Your task to perform on an android device: Is it going to rain today? Image 0: 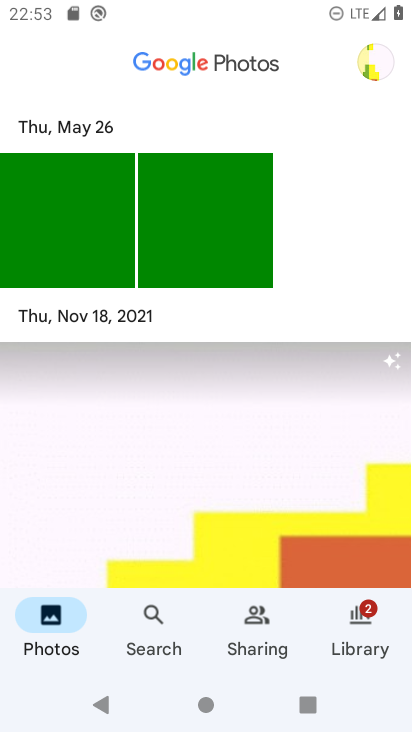
Step 0: press home button
Your task to perform on an android device: Is it going to rain today? Image 1: 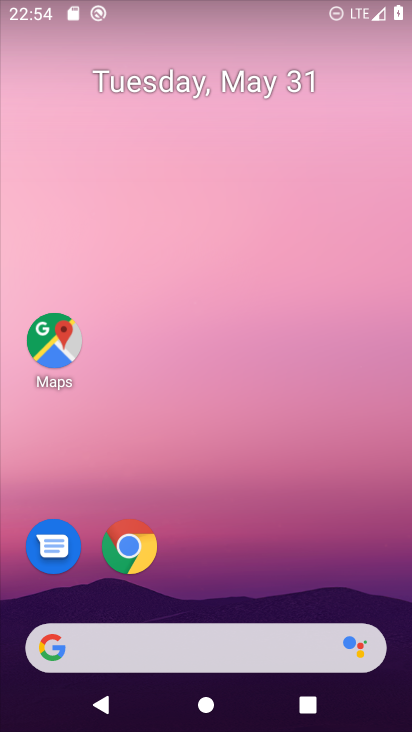
Step 1: drag from (201, 288) to (396, 279)
Your task to perform on an android device: Is it going to rain today? Image 2: 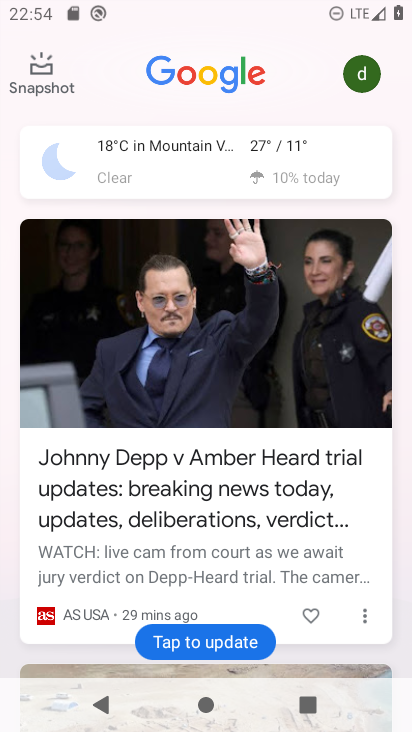
Step 2: click (264, 149)
Your task to perform on an android device: Is it going to rain today? Image 3: 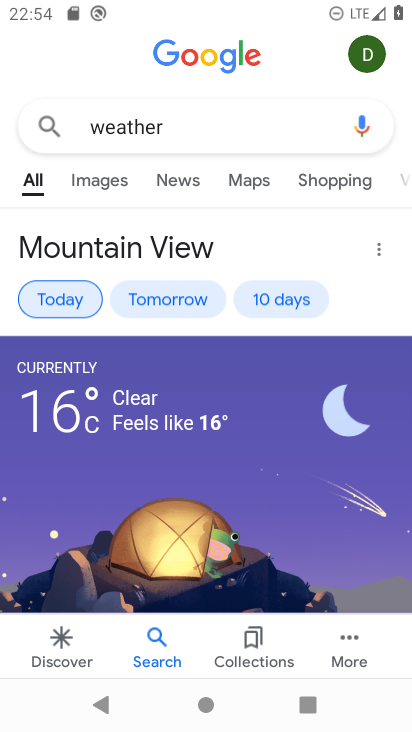
Step 3: click (57, 300)
Your task to perform on an android device: Is it going to rain today? Image 4: 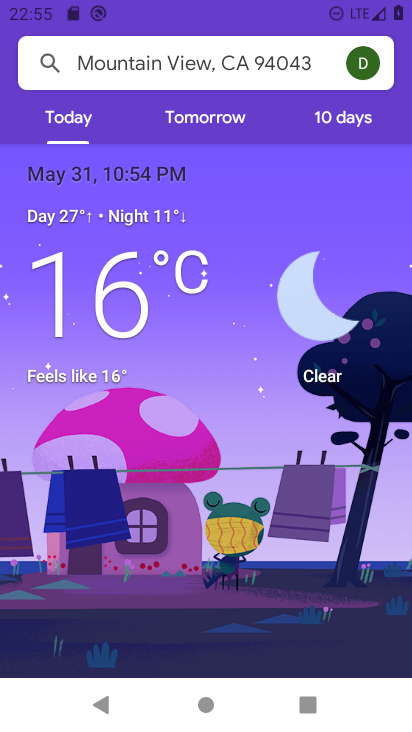
Step 4: task complete